Your task to perform on an android device: Do I have any events this weekend? Image 0: 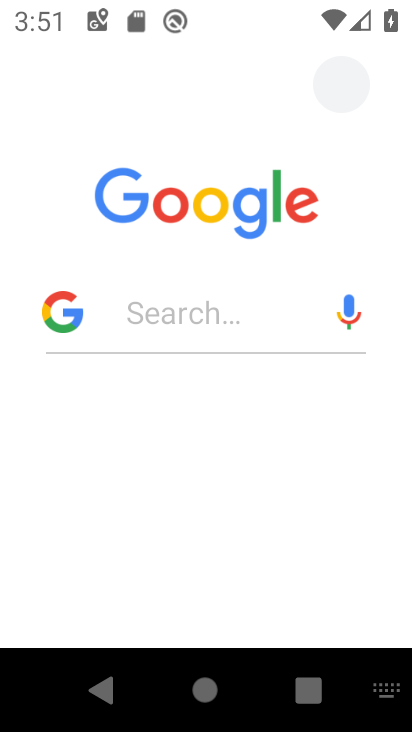
Step 0: press home button
Your task to perform on an android device: Do I have any events this weekend? Image 1: 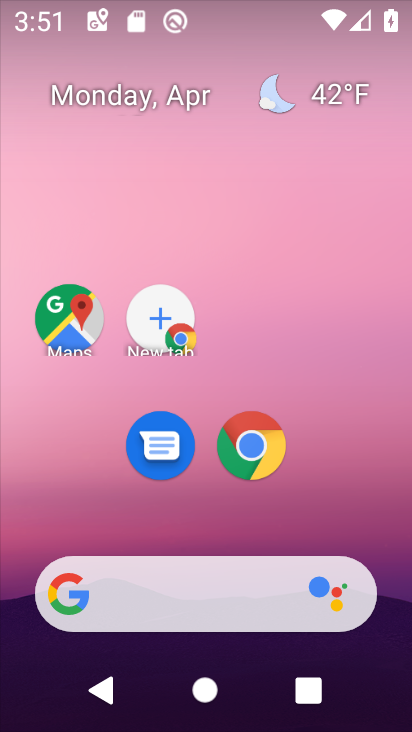
Step 1: drag from (212, 474) to (247, 94)
Your task to perform on an android device: Do I have any events this weekend? Image 2: 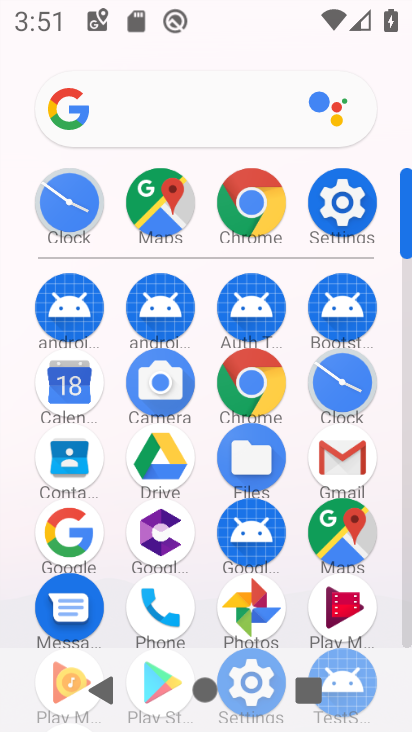
Step 2: click (68, 383)
Your task to perform on an android device: Do I have any events this weekend? Image 3: 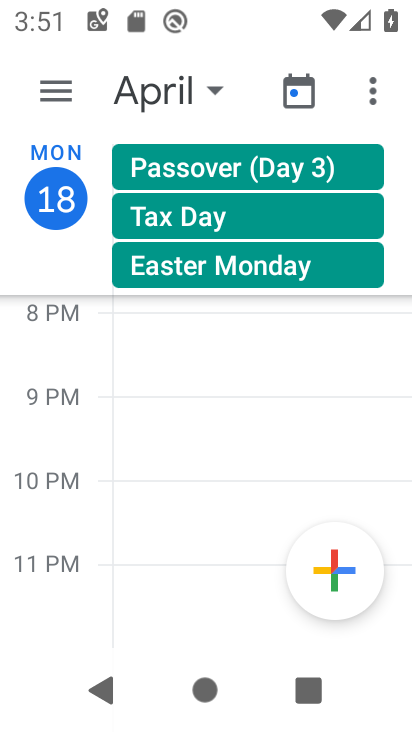
Step 3: click (56, 89)
Your task to perform on an android device: Do I have any events this weekend? Image 4: 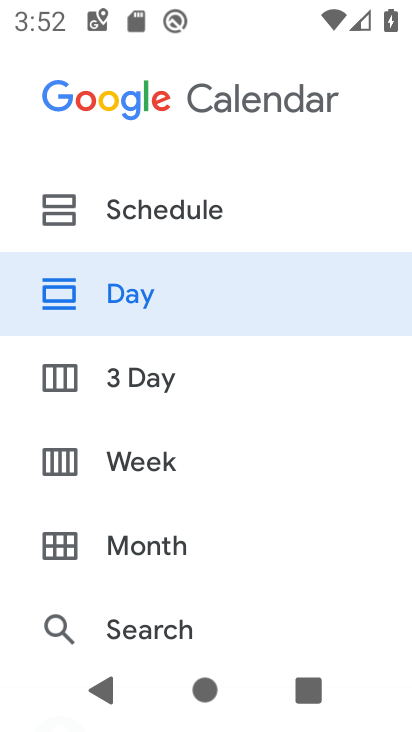
Step 4: click (103, 451)
Your task to perform on an android device: Do I have any events this weekend? Image 5: 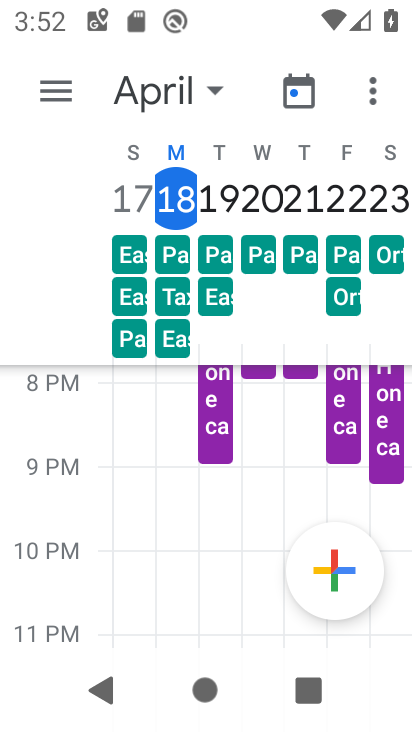
Step 5: click (57, 93)
Your task to perform on an android device: Do I have any events this weekend? Image 6: 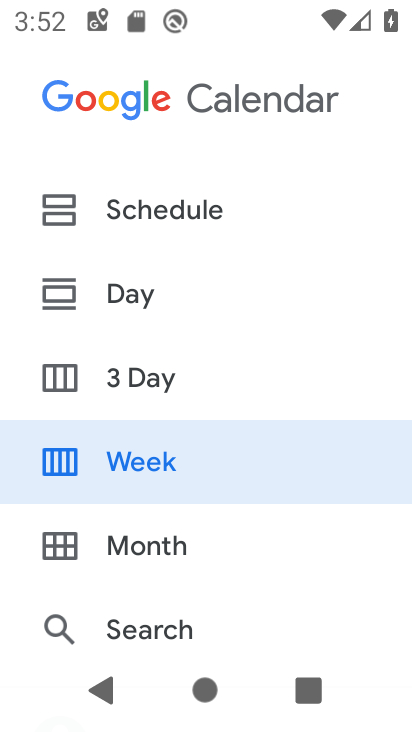
Step 6: click (111, 454)
Your task to perform on an android device: Do I have any events this weekend? Image 7: 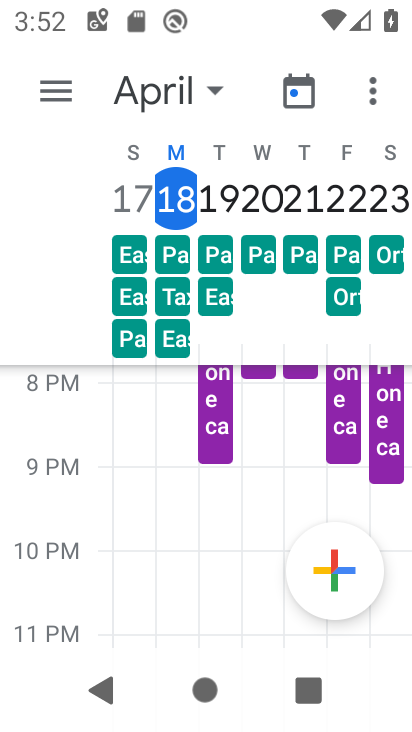
Step 7: click (123, 196)
Your task to perform on an android device: Do I have any events this weekend? Image 8: 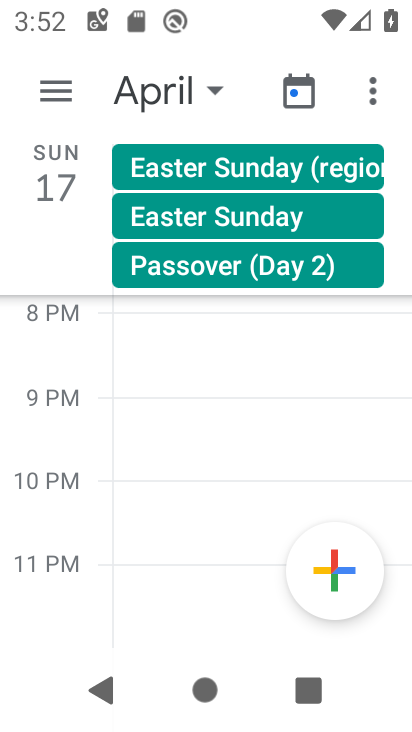
Step 8: click (73, 201)
Your task to perform on an android device: Do I have any events this weekend? Image 9: 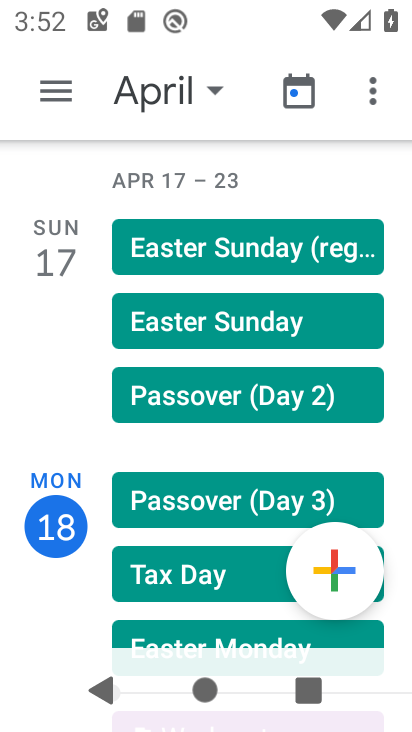
Step 9: task complete